Your task to perform on an android device: find snoozed emails in the gmail app Image 0: 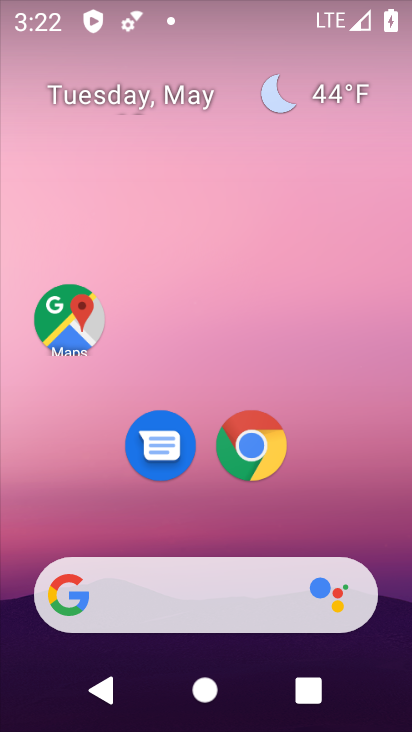
Step 0: drag from (151, 519) to (273, 50)
Your task to perform on an android device: find snoozed emails in the gmail app Image 1: 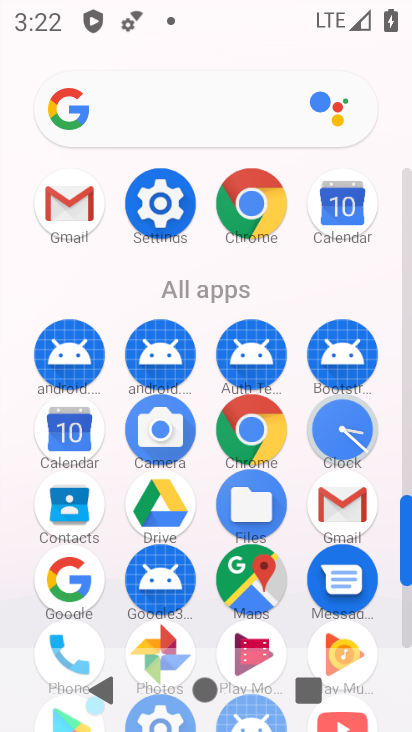
Step 1: click (66, 202)
Your task to perform on an android device: find snoozed emails in the gmail app Image 2: 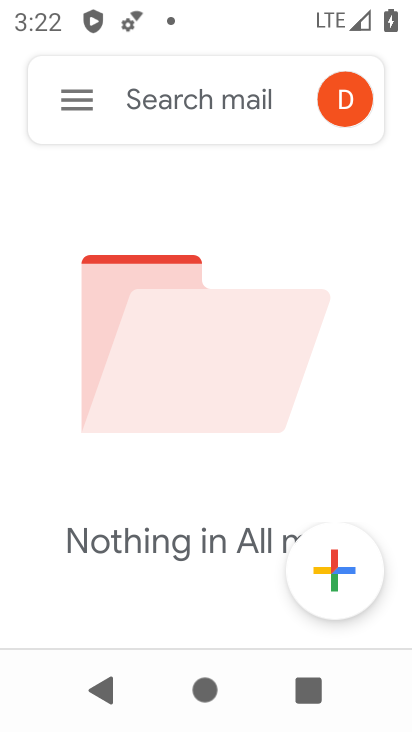
Step 2: click (67, 91)
Your task to perform on an android device: find snoozed emails in the gmail app Image 3: 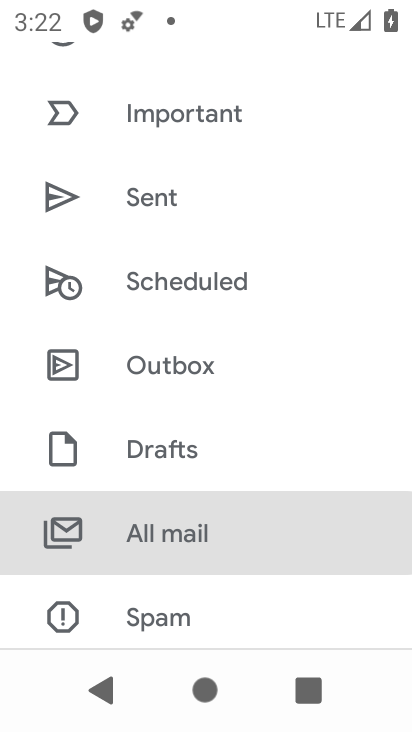
Step 3: drag from (234, 162) to (162, 701)
Your task to perform on an android device: find snoozed emails in the gmail app Image 4: 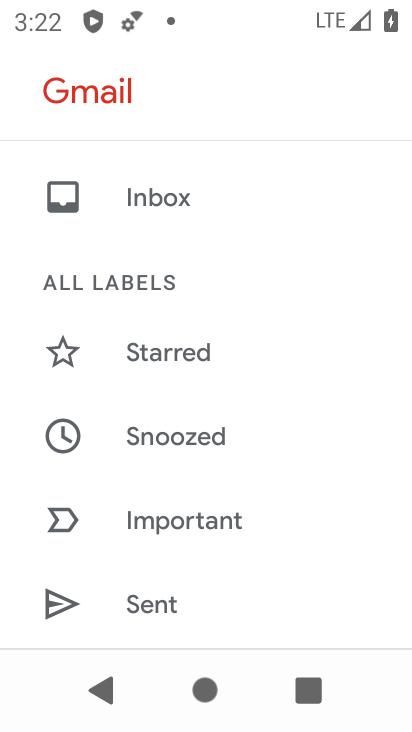
Step 4: click (178, 443)
Your task to perform on an android device: find snoozed emails in the gmail app Image 5: 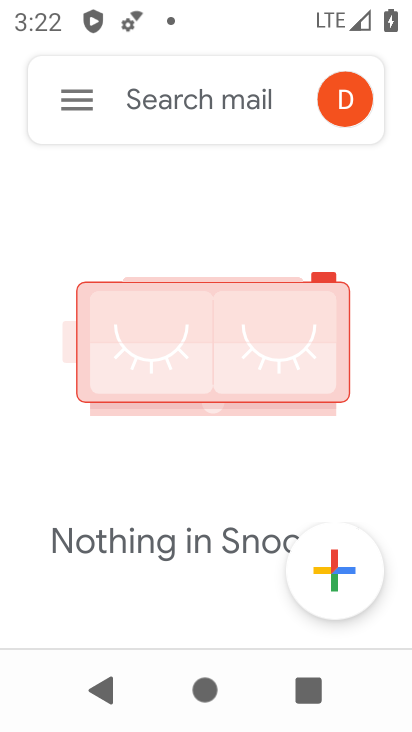
Step 5: task complete